Your task to perform on an android device: toggle translation in the chrome app Image 0: 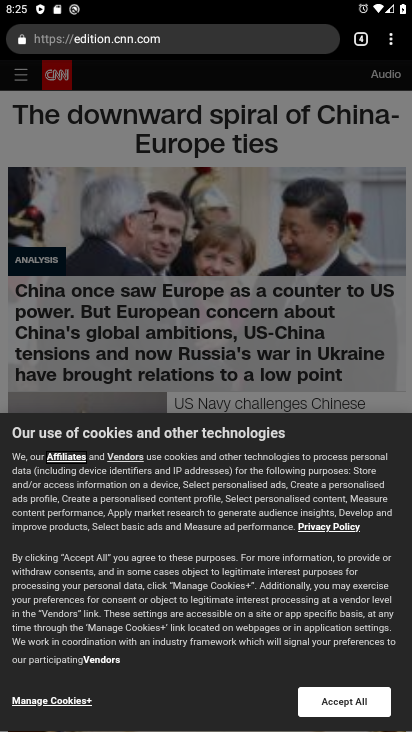
Step 0: press home button
Your task to perform on an android device: toggle translation in the chrome app Image 1: 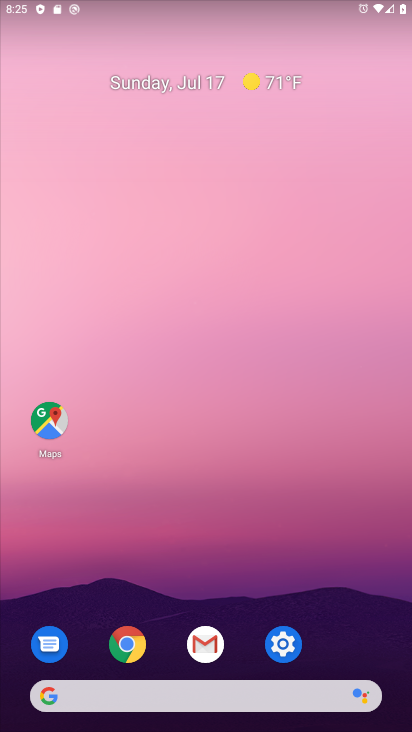
Step 1: click (126, 646)
Your task to perform on an android device: toggle translation in the chrome app Image 2: 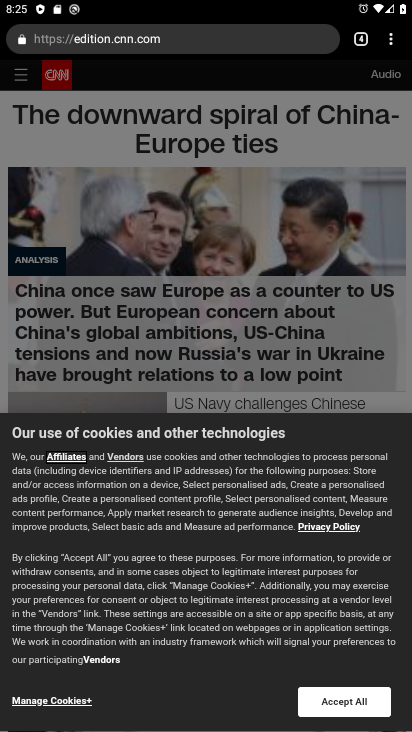
Step 2: click (392, 42)
Your task to perform on an android device: toggle translation in the chrome app Image 3: 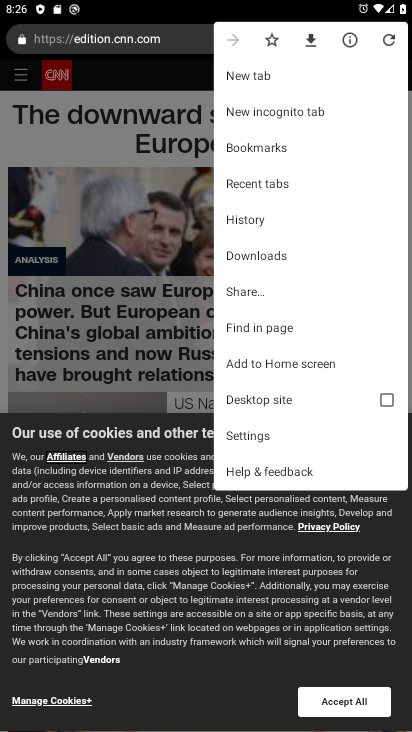
Step 3: click (249, 431)
Your task to perform on an android device: toggle translation in the chrome app Image 4: 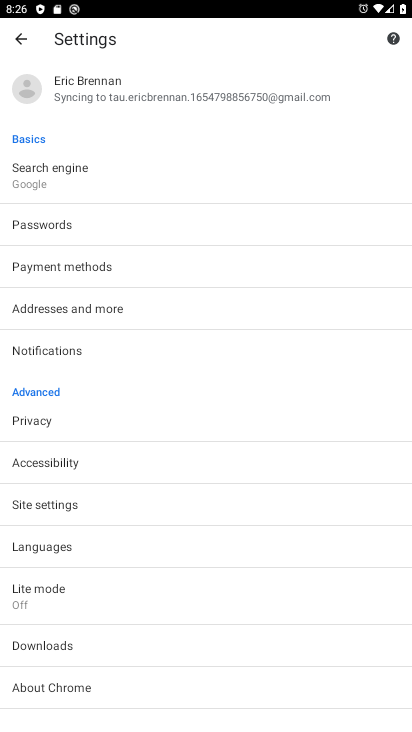
Step 4: click (80, 544)
Your task to perform on an android device: toggle translation in the chrome app Image 5: 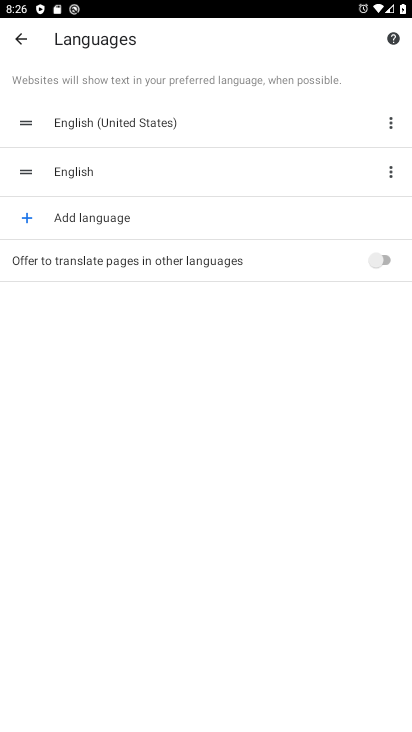
Step 5: click (376, 268)
Your task to perform on an android device: toggle translation in the chrome app Image 6: 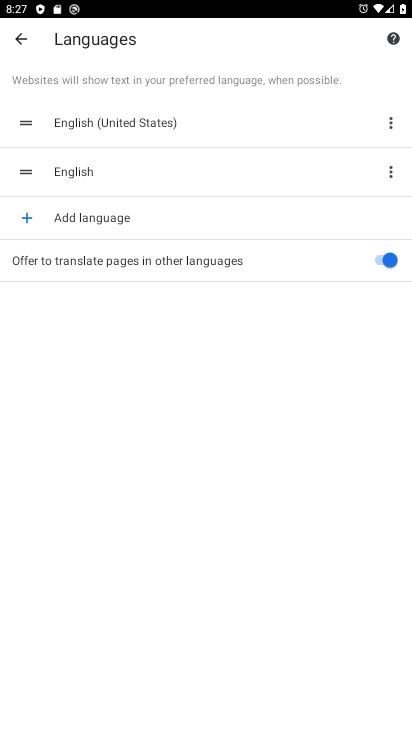
Step 6: task complete